Your task to perform on an android device: find which apps use the phone's location Image 0: 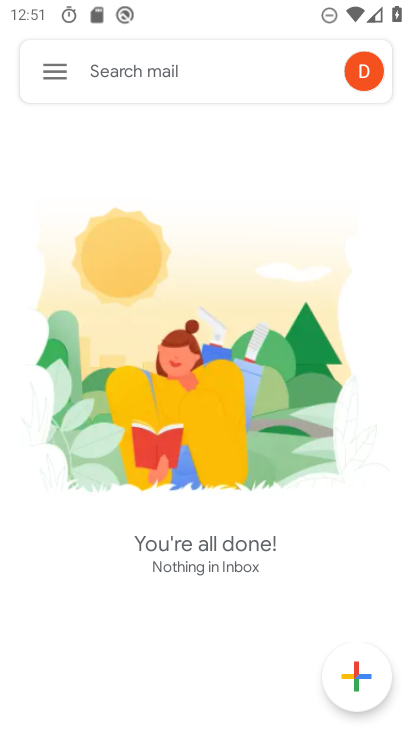
Step 0: press home button
Your task to perform on an android device: find which apps use the phone's location Image 1: 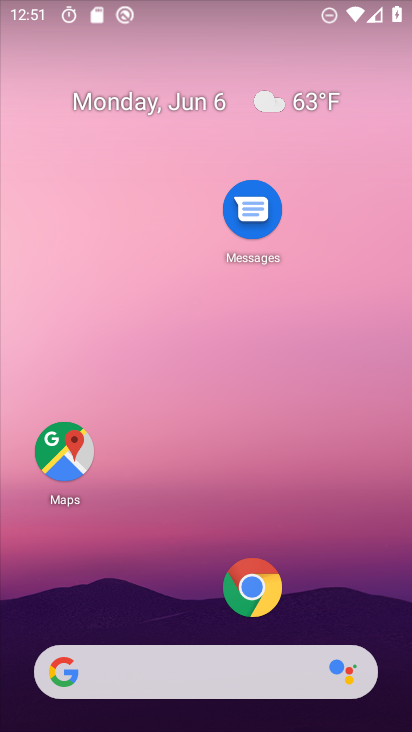
Step 1: drag from (155, 592) to (162, 44)
Your task to perform on an android device: find which apps use the phone's location Image 2: 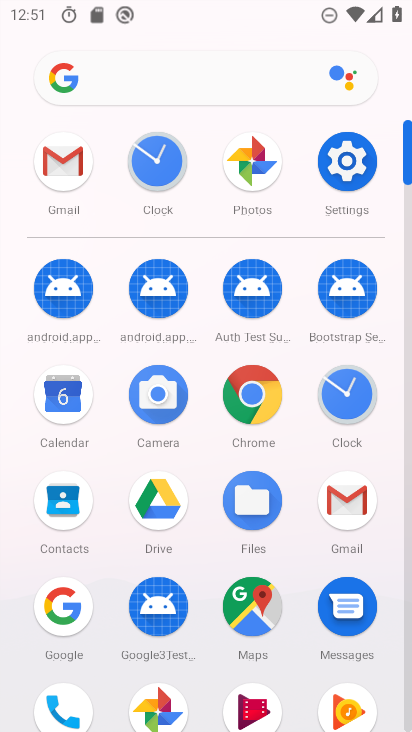
Step 2: click (360, 168)
Your task to perform on an android device: find which apps use the phone's location Image 3: 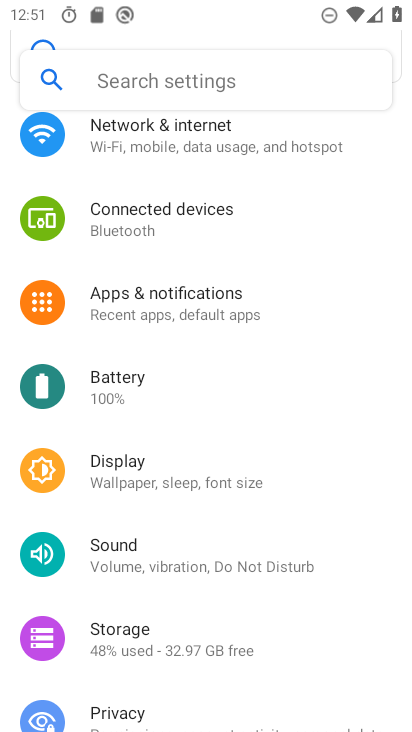
Step 3: drag from (172, 593) to (258, 180)
Your task to perform on an android device: find which apps use the phone's location Image 4: 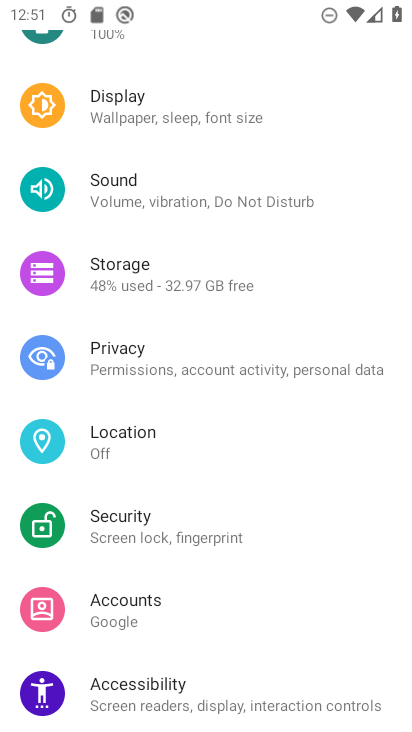
Step 4: click (148, 462)
Your task to perform on an android device: find which apps use the phone's location Image 5: 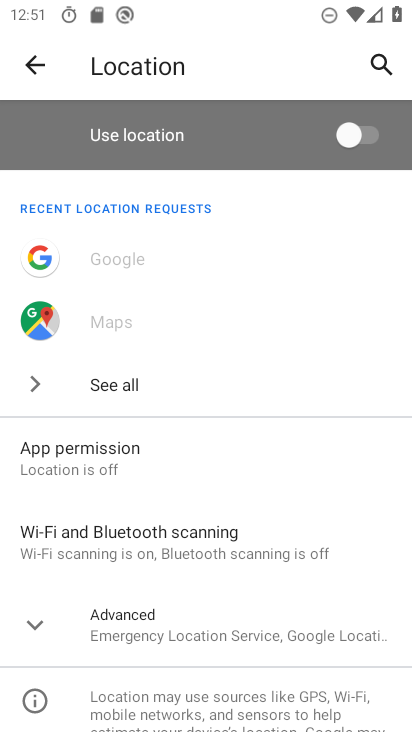
Step 5: click (160, 371)
Your task to perform on an android device: find which apps use the phone's location Image 6: 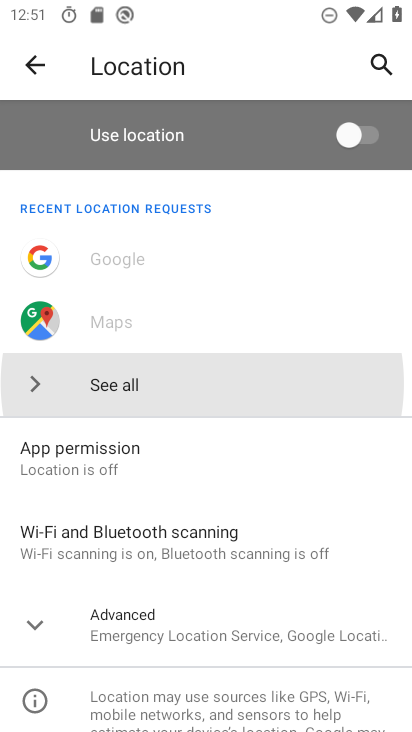
Step 6: click (133, 382)
Your task to perform on an android device: find which apps use the phone's location Image 7: 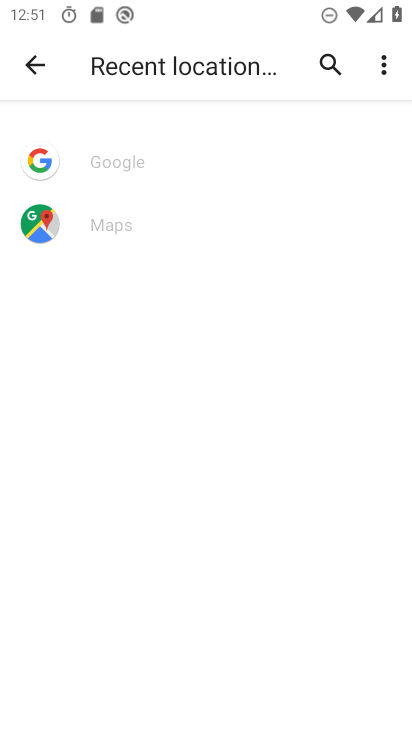
Step 7: task complete